Your task to perform on an android device: Play the last video I watched on Youtube Image 0: 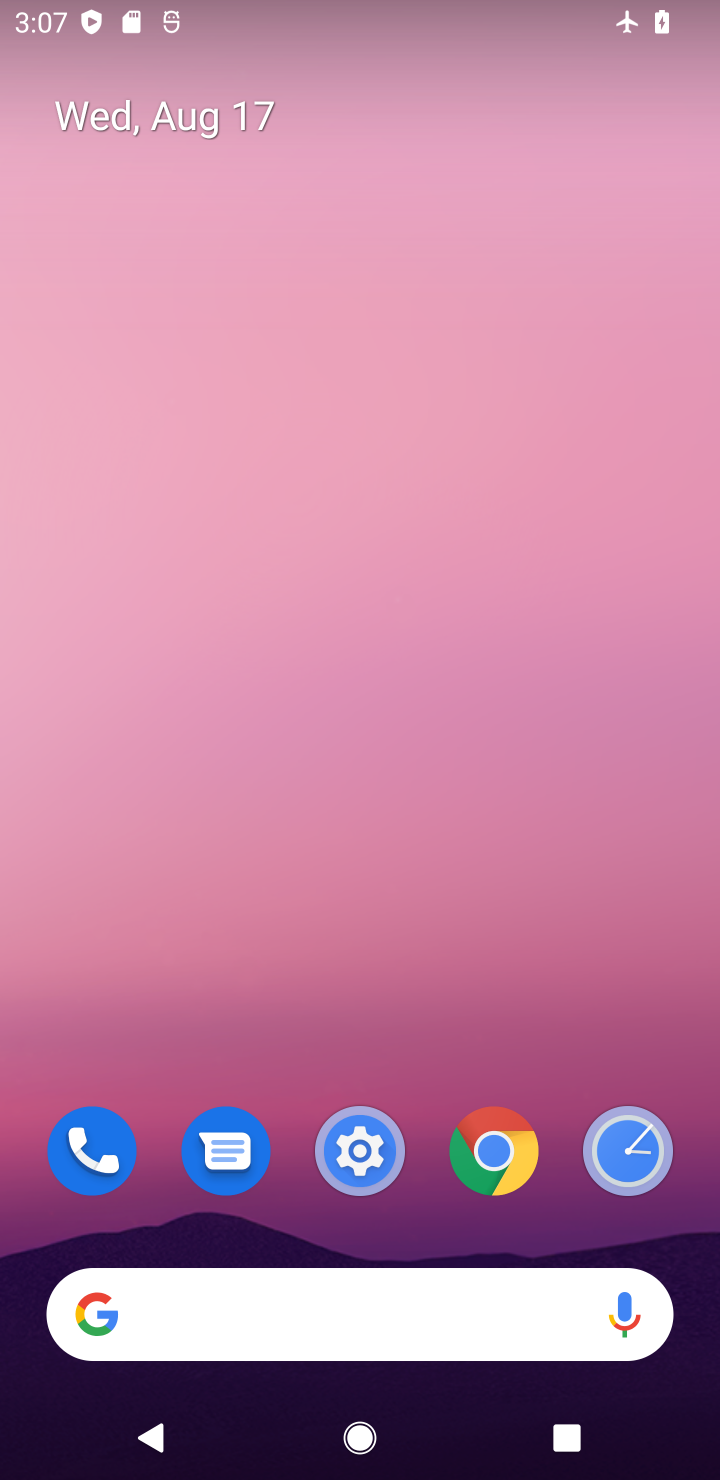
Step 0: drag from (404, 1212) to (573, 204)
Your task to perform on an android device: Play the last video I watched on Youtube Image 1: 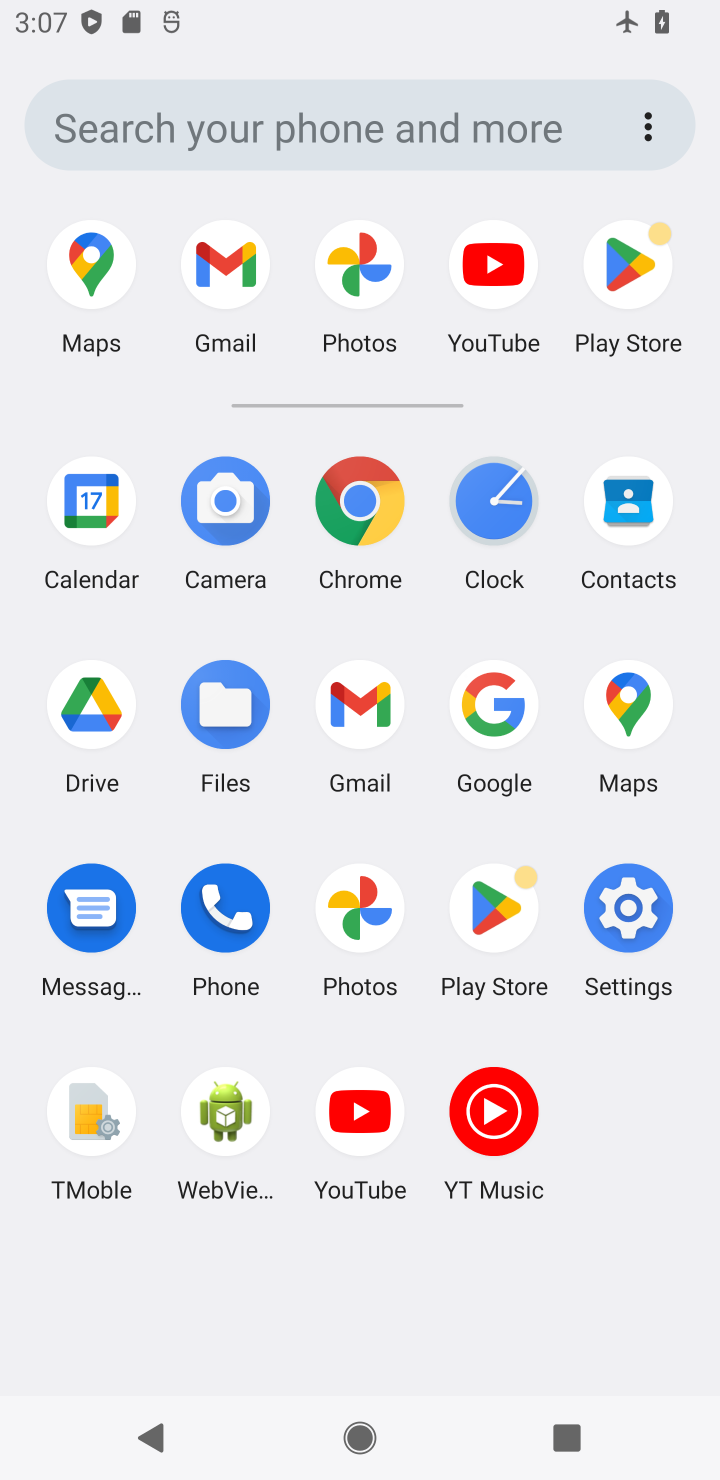
Step 1: click (360, 1122)
Your task to perform on an android device: Play the last video I watched on Youtube Image 2: 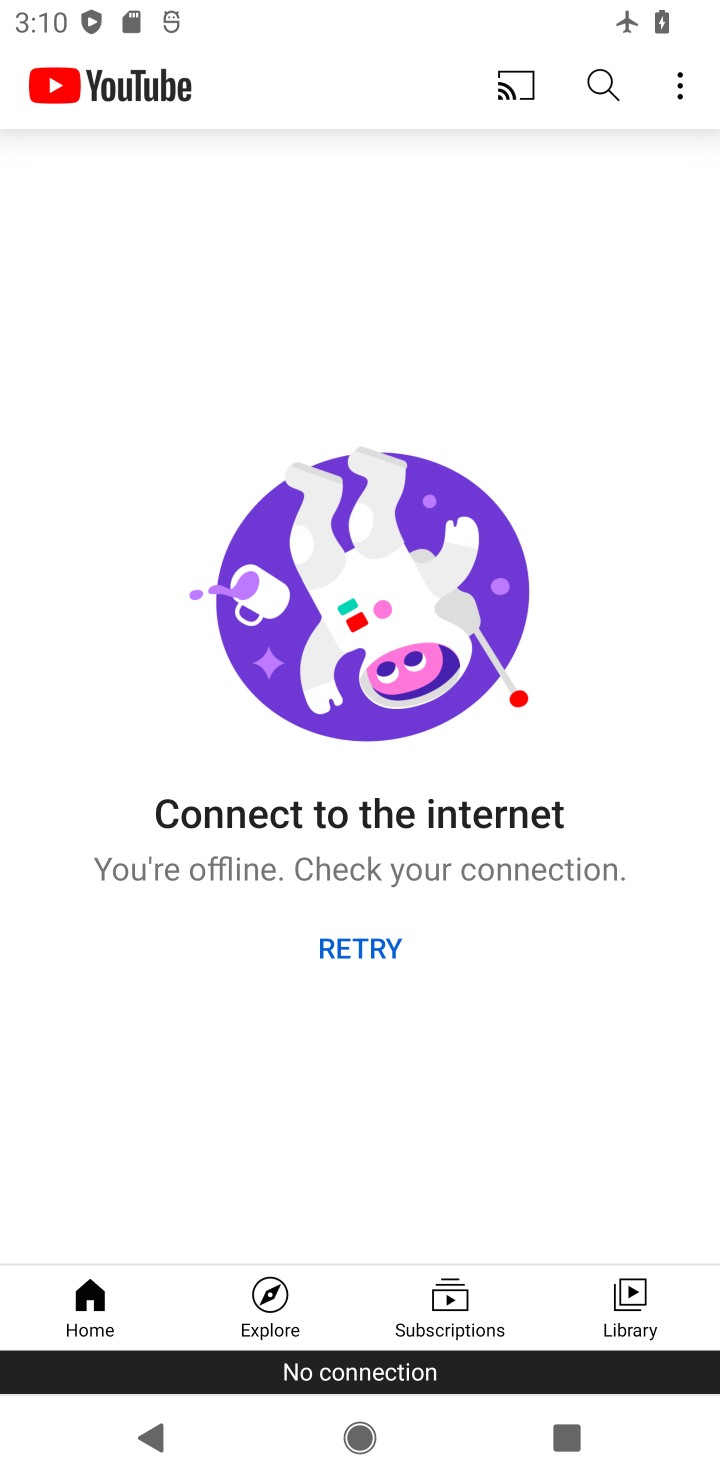
Step 2: task complete